Your task to perform on an android device: add a contact in the contacts app Image 0: 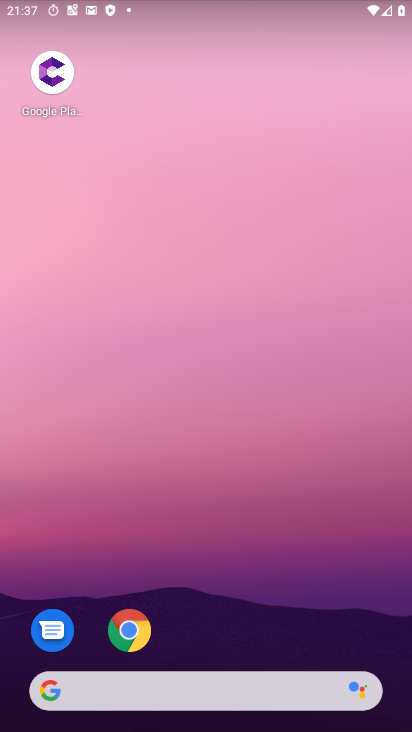
Step 0: drag from (24, 694) to (212, 179)
Your task to perform on an android device: add a contact in the contacts app Image 1: 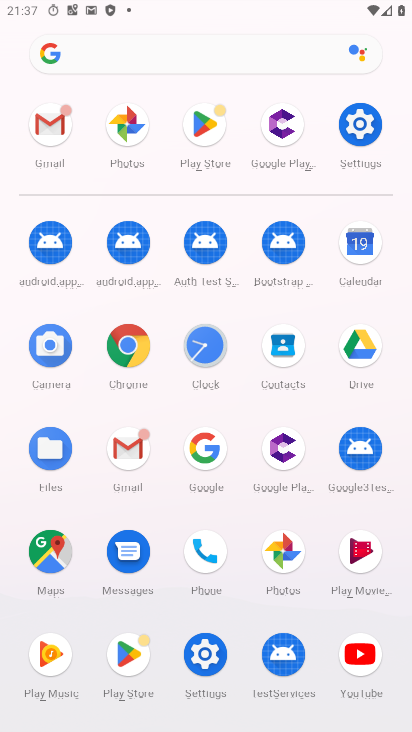
Step 1: click (278, 359)
Your task to perform on an android device: add a contact in the contacts app Image 2: 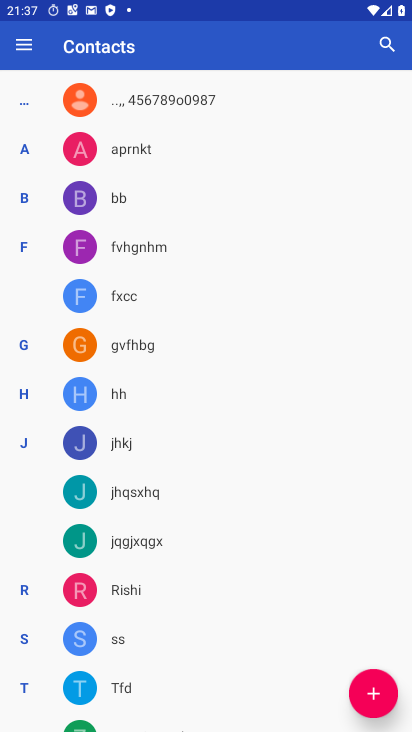
Step 2: click (383, 702)
Your task to perform on an android device: add a contact in the contacts app Image 3: 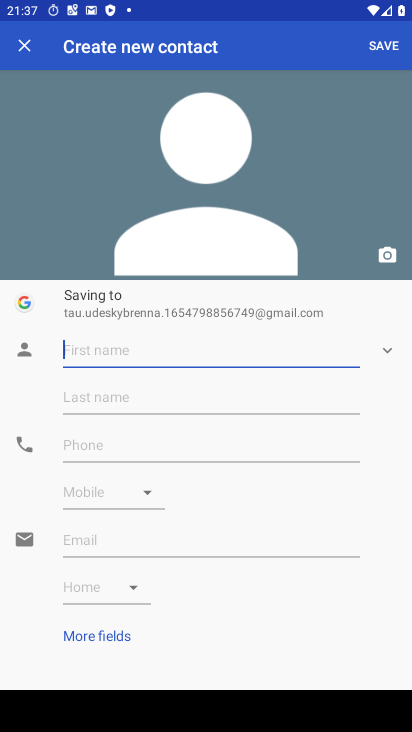
Step 3: type "gfjykh"
Your task to perform on an android device: add a contact in the contacts app Image 4: 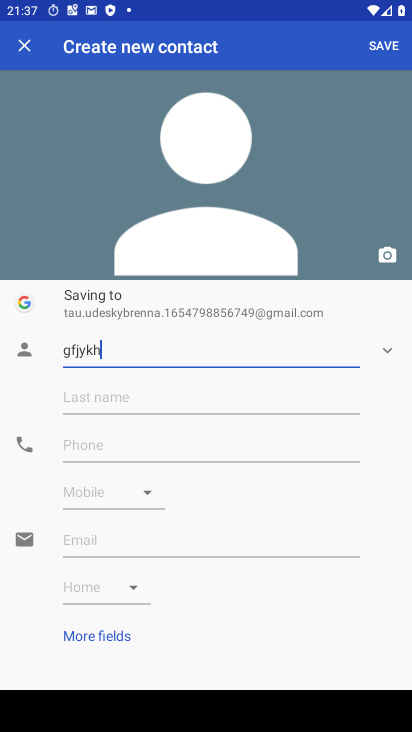
Step 4: type ""
Your task to perform on an android device: add a contact in the contacts app Image 5: 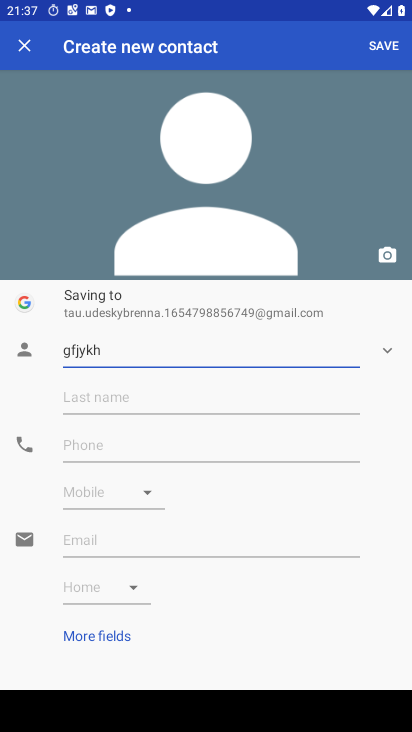
Step 5: click (393, 47)
Your task to perform on an android device: add a contact in the contacts app Image 6: 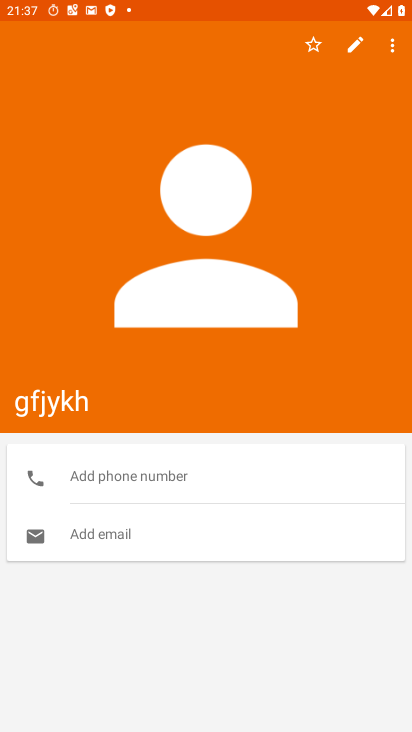
Step 6: task complete